Your task to perform on an android device: Go to calendar. Show me events next week Image 0: 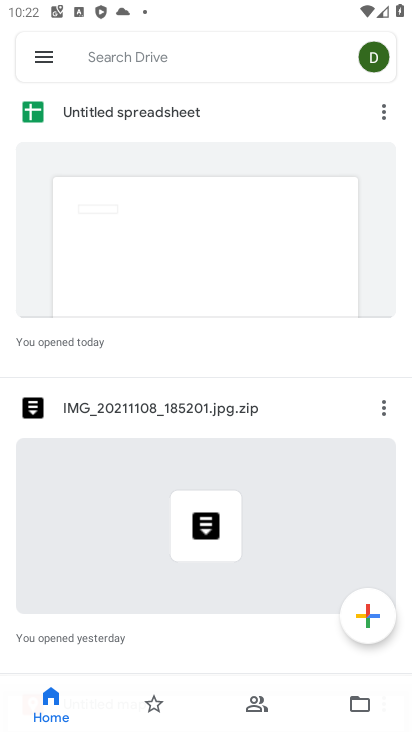
Step 0: press home button
Your task to perform on an android device: Go to calendar. Show me events next week Image 1: 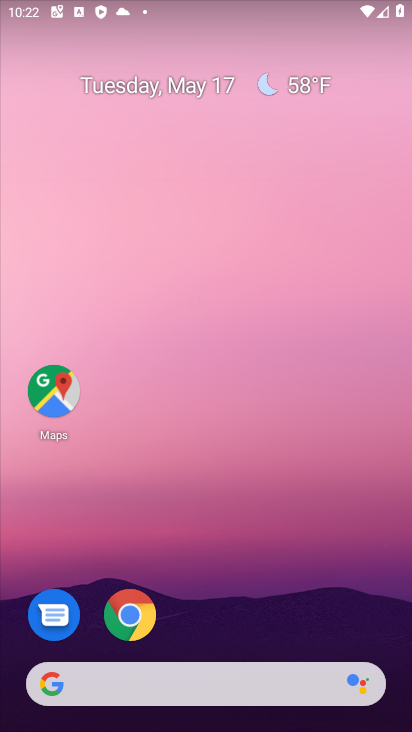
Step 1: drag from (378, 631) to (266, 114)
Your task to perform on an android device: Go to calendar. Show me events next week Image 2: 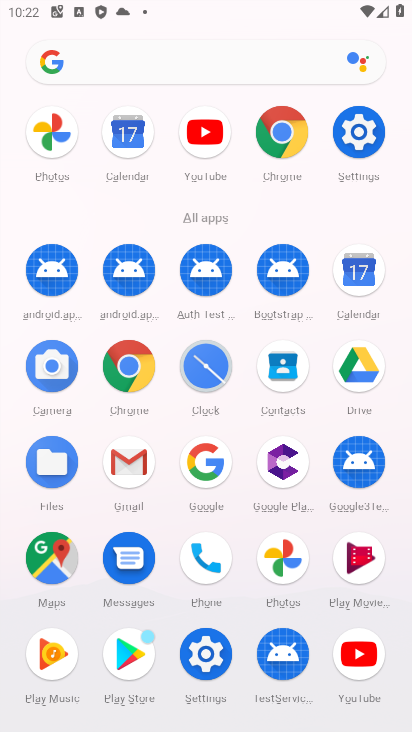
Step 2: click (358, 269)
Your task to perform on an android device: Go to calendar. Show me events next week Image 3: 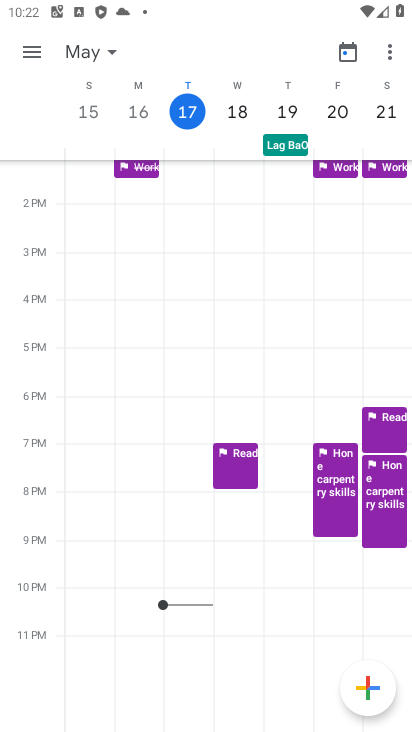
Step 3: click (111, 51)
Your task to perform on an android device: Go to calendar. Show me events next week Image 4: 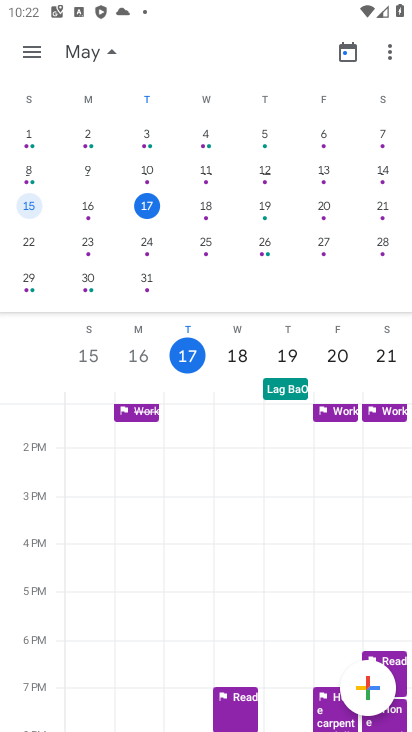
Step 4: click (38, 236)
Your task to perform on an android device: Go to calendar. Show me events next week Image 5: 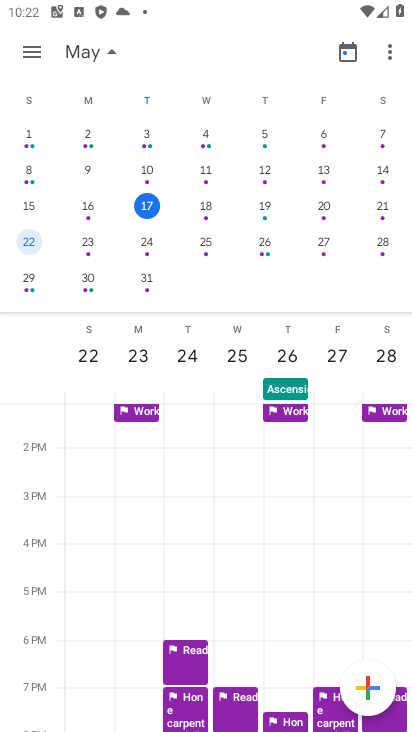
Step 5: task complete